Your task to perform on an android device: clear history in the chrome app Image 0: 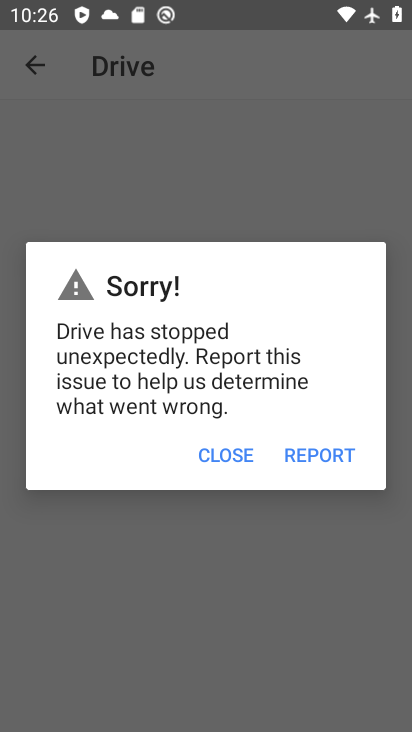
Step 0: press home button
Your task to perform on an android device: clear history in the chrome app Image 1: 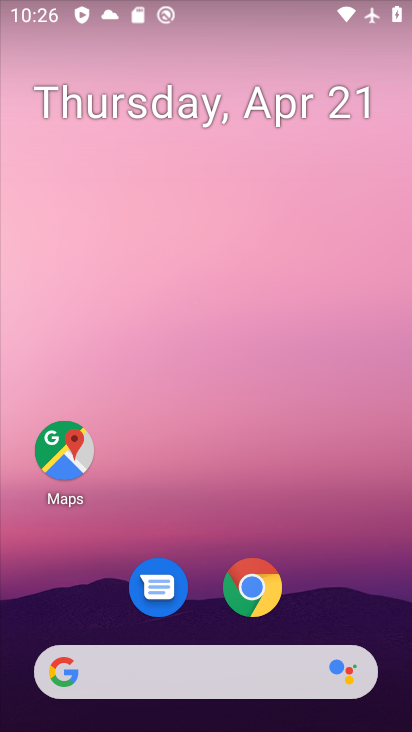
Step 1: drag from (331, 588) to (328, 204)
Your task to perform on an android device: clear history in the chrome app Image 2: 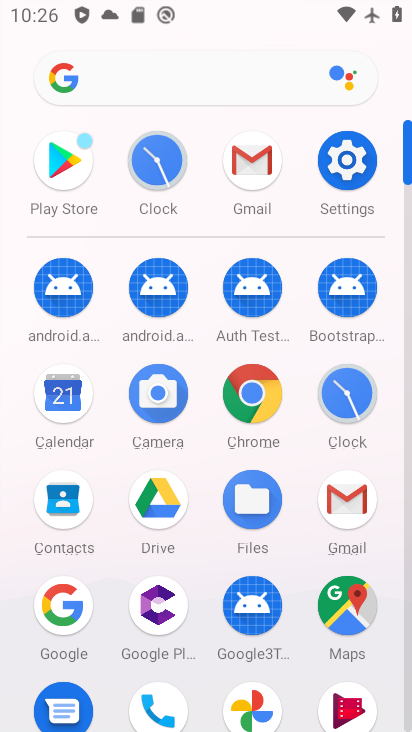
Step 2: click (260, 397)
Your task to perform on an android device: clear history in the chrome app Image 3: 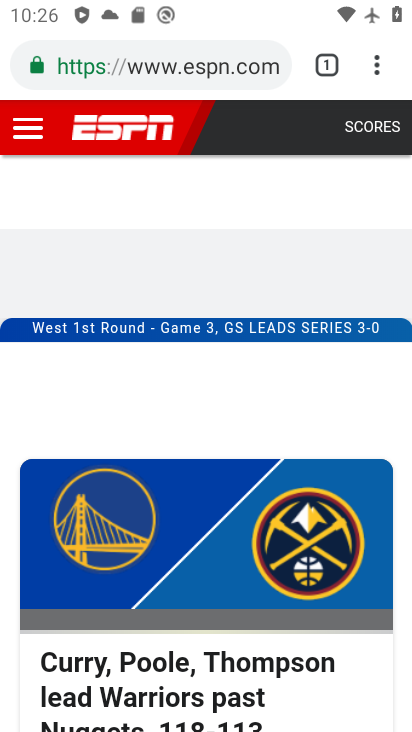
Step 3: click (372, 67)
Your task to perform on an android device: clear history in the chrome app Image 4: 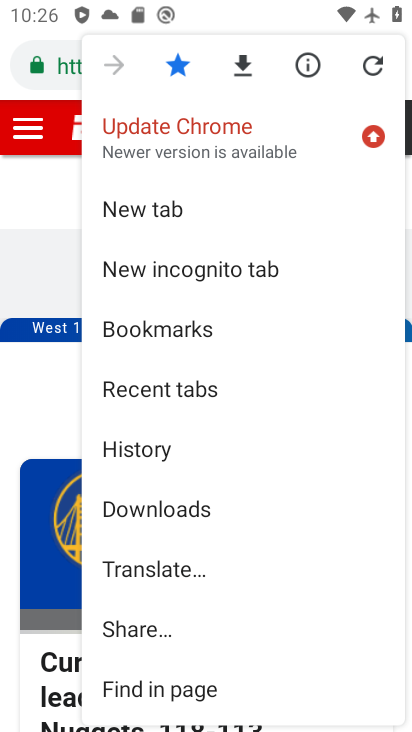
Step 4: click (172, 455)
Your task to perform on an android device: clear history in the chrome app Image 5: 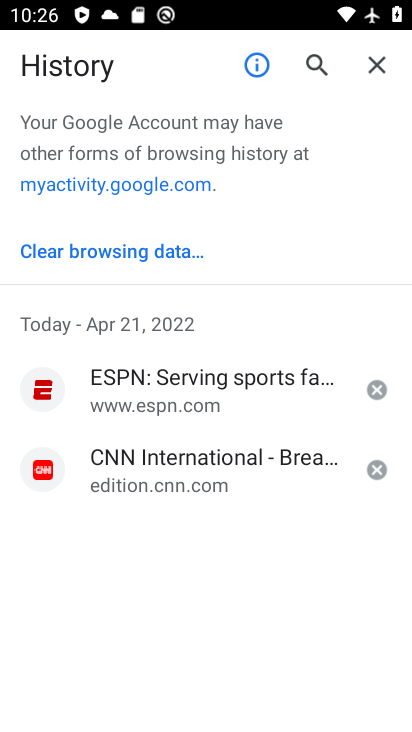
Step 5: click (167, 248)
Your task to perform on an android device: clear history in the chrome app Image 6: 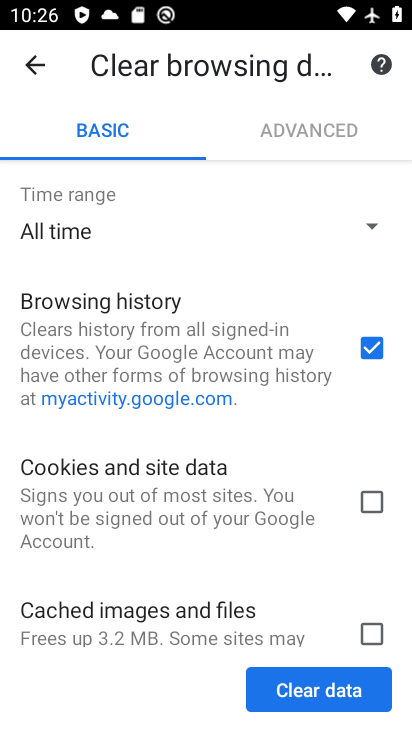
Step 6: click (326, 677)
Your task to perform on an android device: clear history in the chrome app Image 7: 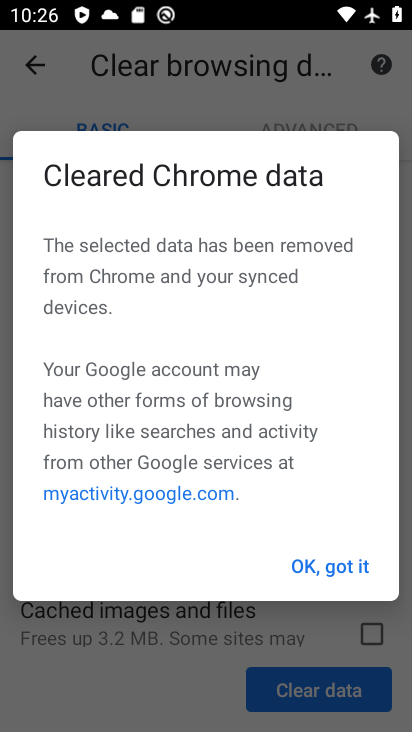
Step 7: click (331, 566)
Your task to perform on an android device: clear history in the chrome app Image 8: 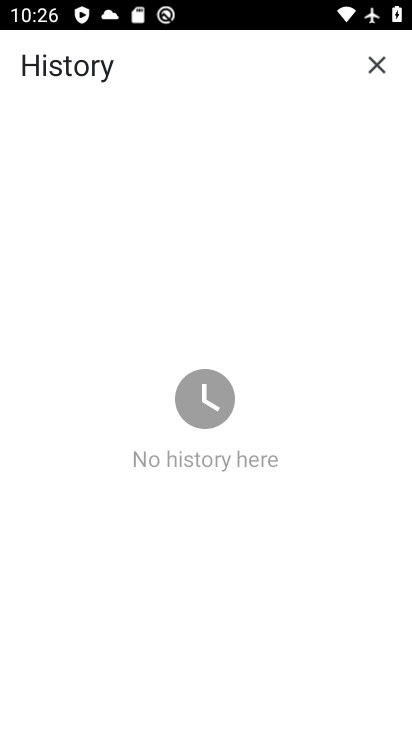
Step 8: task complete